Your task to perform on an android device: Open Youtube and go to the subscriptions tab Image 0: 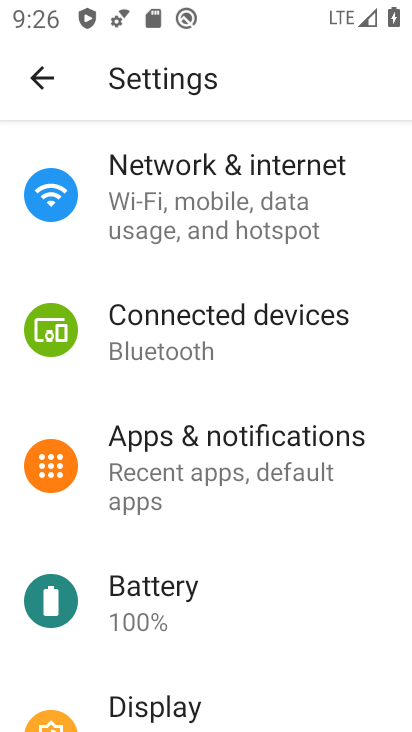
Step 0: press home button
Your task to perform on an android device: Open Youtube and go to the subscriptions tab Image 1: 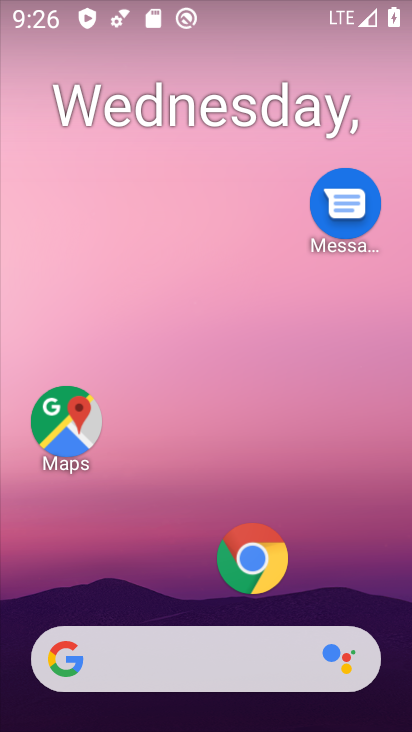
Step 1: drag from (222, 637) to (30, 22)
Your task to perform on an android device: Open Youtube and go to the subscriptions tab Image 2: 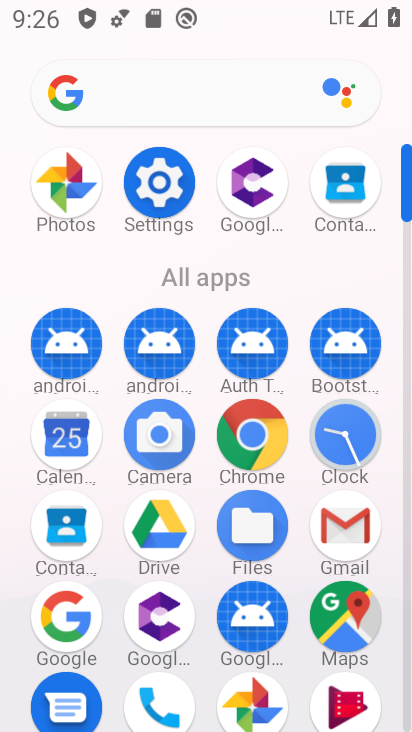
Step 2: drag from (206, 597) to (113, 220)
Your task to perform on an android device: Open Youtube and go to the subscriptions tab Image 3: 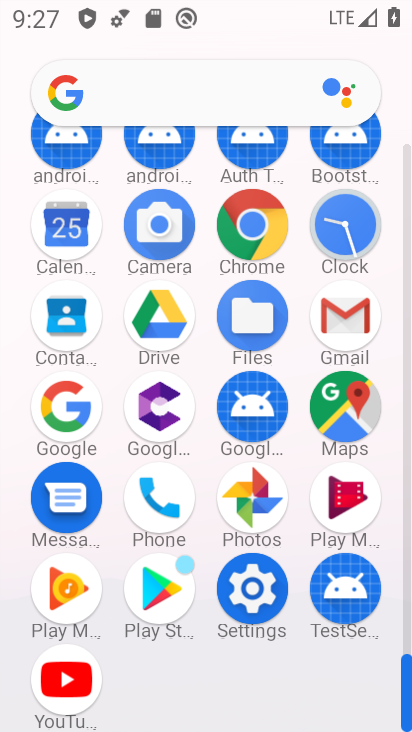
Step 3: click (72, 667)
Your task to perform on an android device: Open Youtube and go to the subscriptions tab Image 4: 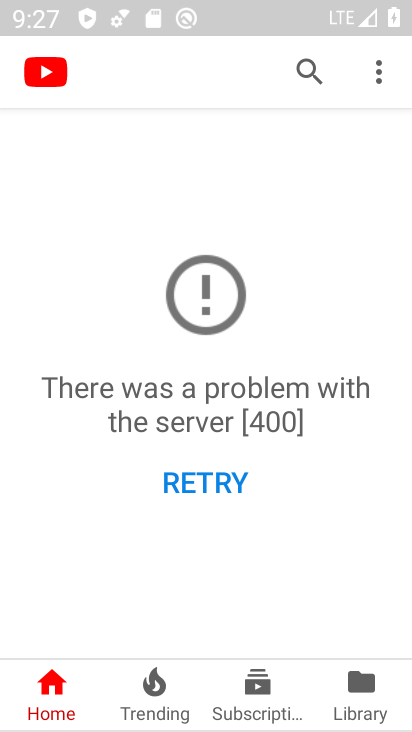
Step 4: click (265, 692)
Your task to perform on an android device: Open Youtube and go to the subscriptions tab Image 5: 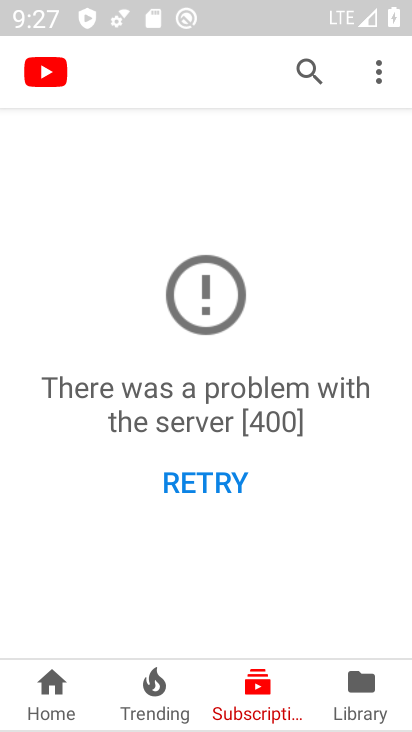
Step 5: task complete